Your task to perform on an android device: open the mobile data screen to see how much data has been used Image 0: 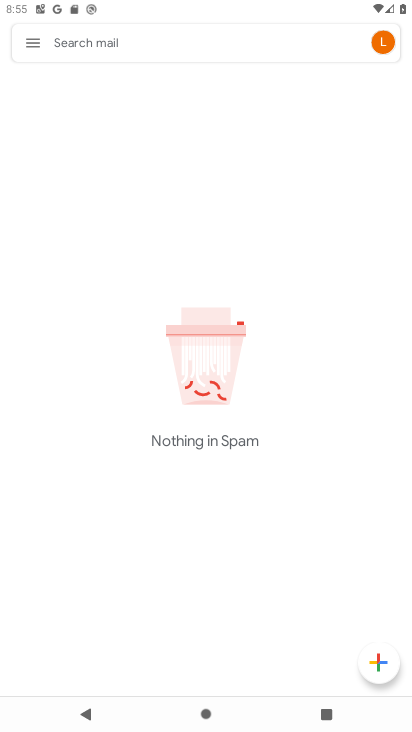
Step 0: drag from (259, 19) to (291, 610)
Your task to perform on an android device: open the mobile data screen to see how much data has been used Image 1: 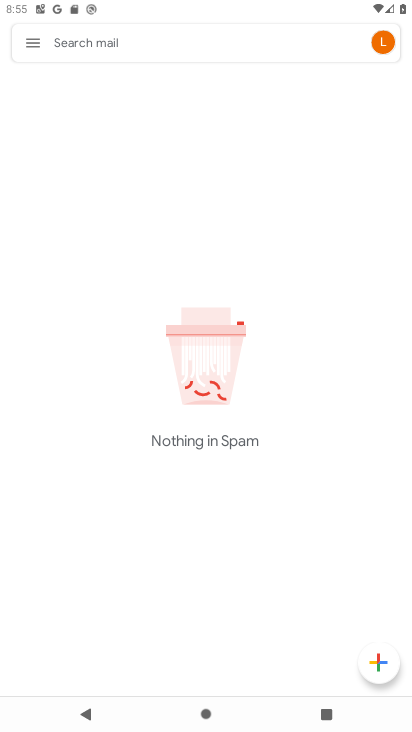
Step 1: drag from (208, 4) to (319, 560)
Your task to perform on an android device: open the mobile data screen to see how much data has been used Image 2: 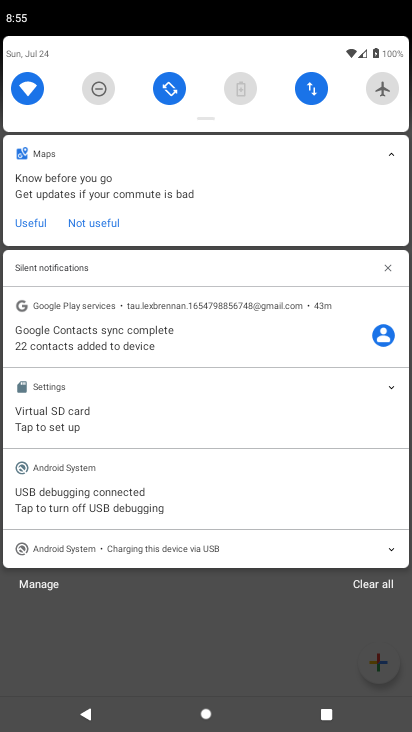
Step 2: click (317, 89)
Your task to perform on an android device: open the mobile data screen to see how much data has been used Image 3: 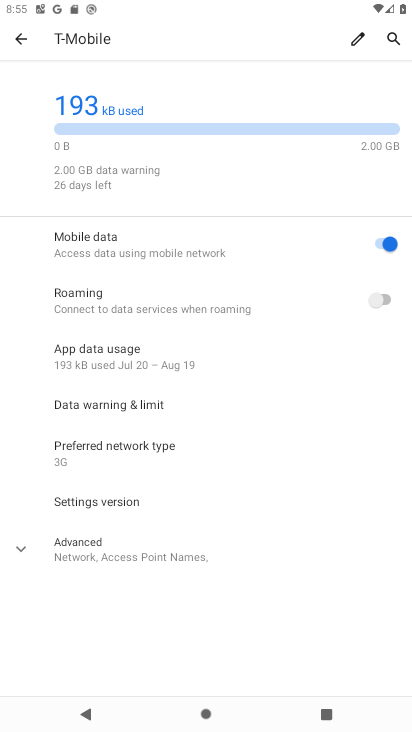
Step 3: task complete